Your task to perform on an android device: Go to Yahoo.com Image 0: 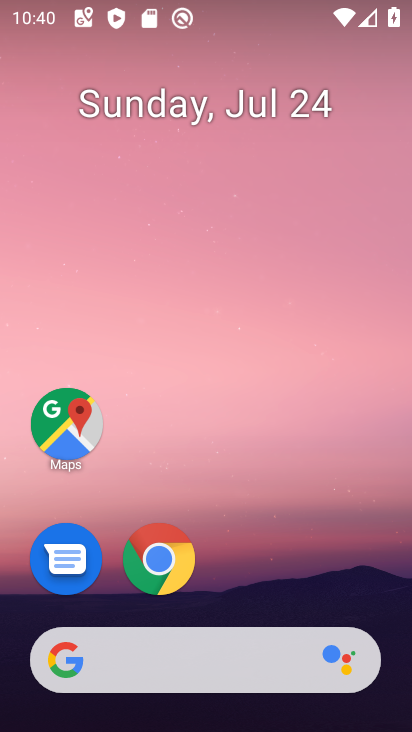
Step 0: click (162, 568)
Your task to perform on an android device: Go to Yahoo.com Image 1: 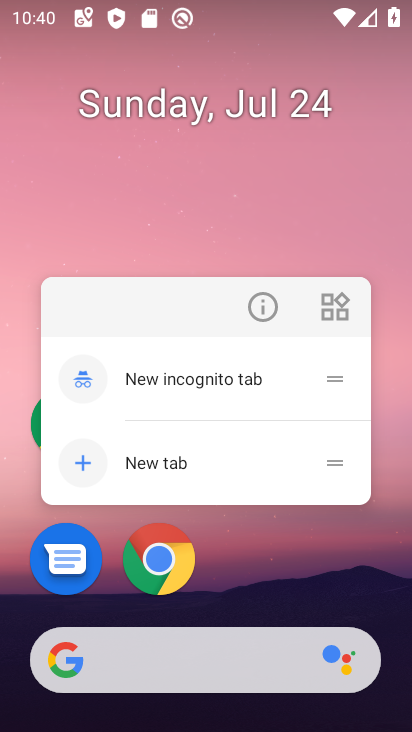
Step 1: click (169, 553)
Your task to perform on an android device: Go to Yahoo.com Image 2: 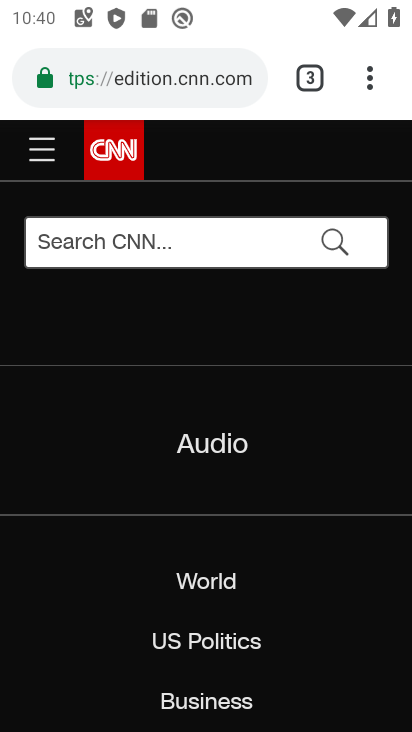
Step 2: click (303, 77)
Your task to perform on an android device: Go to Yahoo.com Image 3: 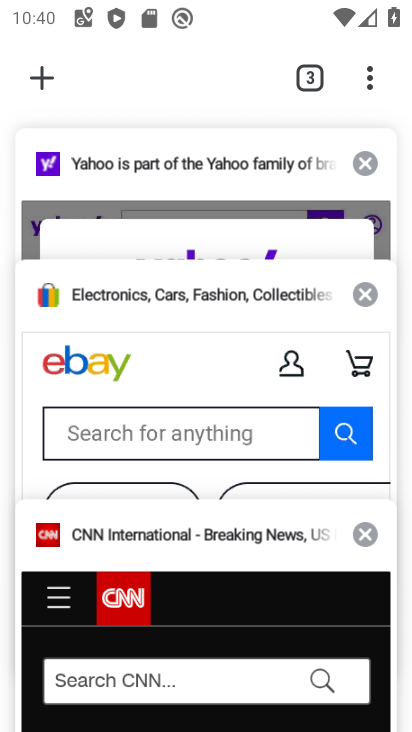
Step 3: click (121, 147)
Your task to perform on an android device: Go to Yahoo.com Image 4: 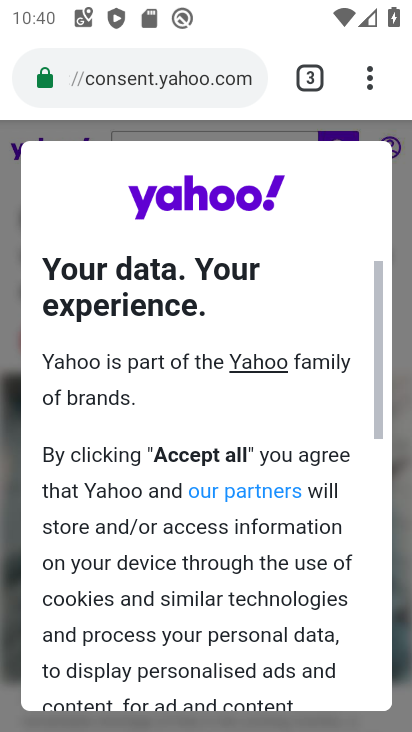
Step 4: task complete